Your task to perform on an android device: open chrome privacy settings Image 0: 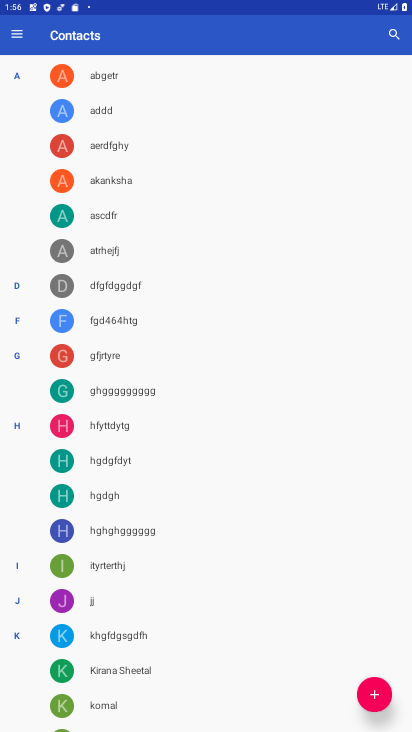
Step 0: press home button
Your task to perform on an android device: open chrome privacy settings Image 1: 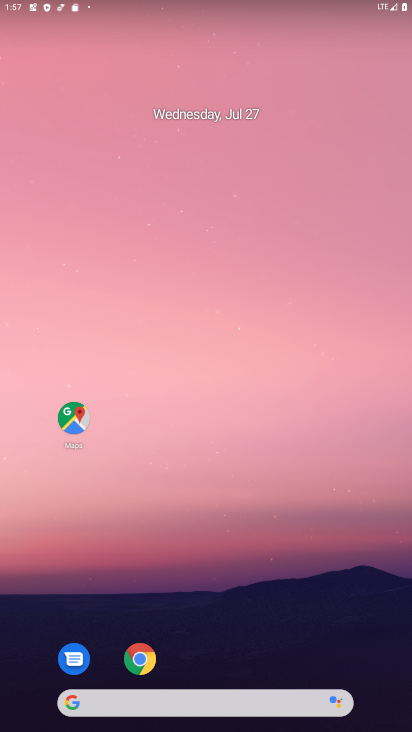
Step 1: click (138, 654)
Your task to perform on an android device: open chrome privacy settings Image 2: 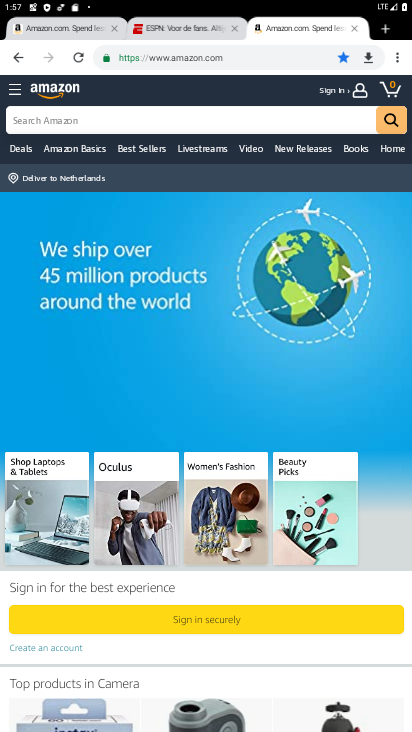
Step 2: click (398, 59)
Your task to perform on an android device: open chrome privacy settings Image 3: 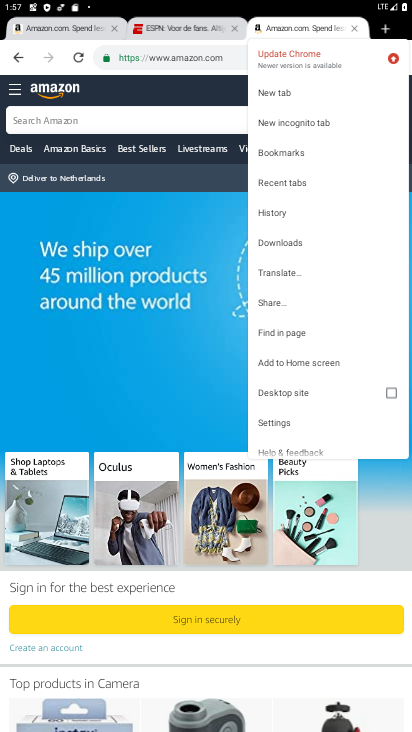
Step 3: click (277, 425)
Your task to perform on an android device: open chrome privacy settings Image 4: 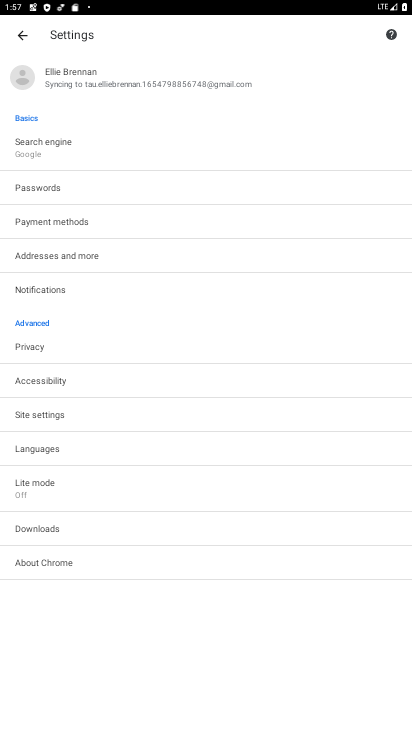
Step 4: click (33, 343)
Your task to perform on an android device: open chrome privacy settings Image 5: 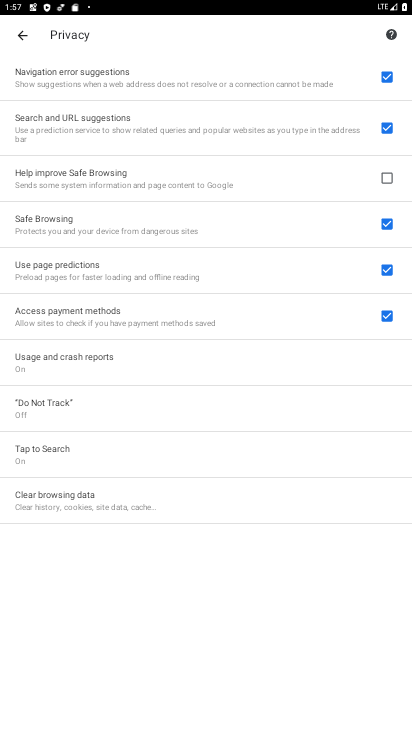
Step 5: task complete